Your task to perform on an android device: add a label to a message in the gmail app Image 0: 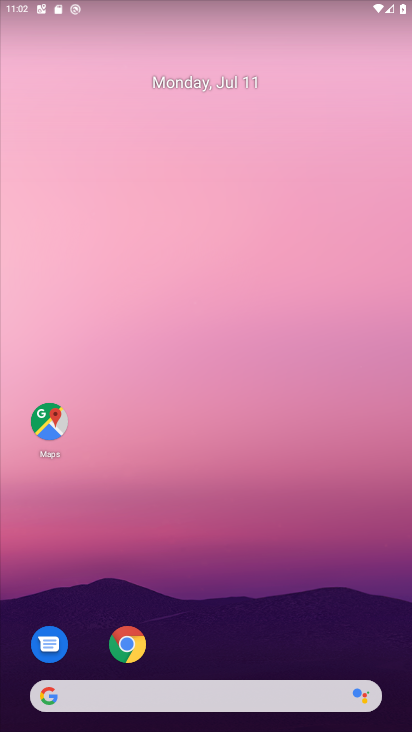
Step 0: drag from (301, 599) to (286, 198)
Your task to perform on an android device: add a label to a message in the gmail app Image 1: 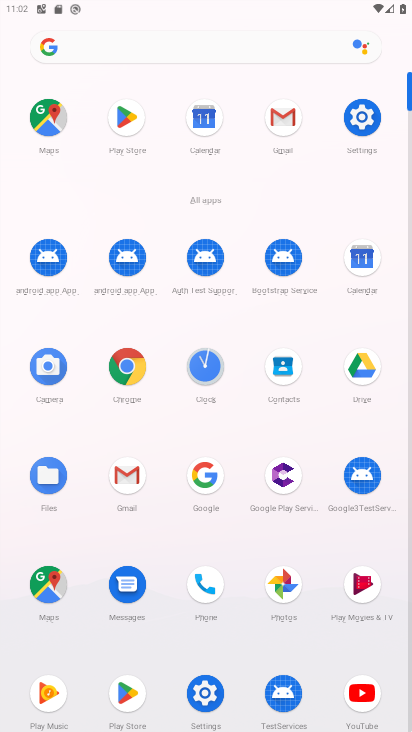
Step 1: click (278, 127)
Your task to perform on an android device: add a label to a message in the gmail app Image 2: 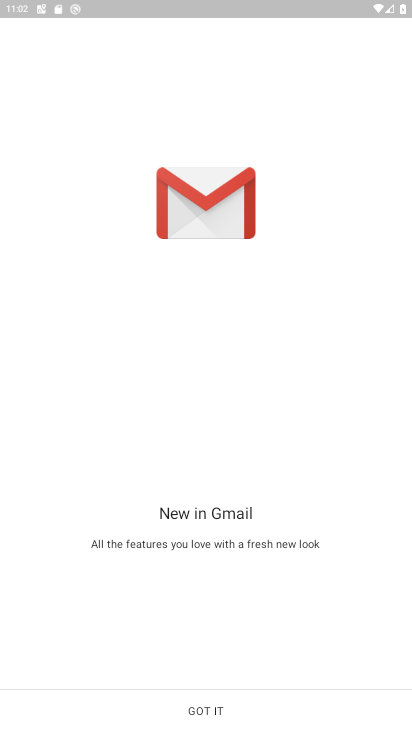
Step 2: click (269, 699)
Your task to perform on an android device: add a label to a message in the gmail app Image 3: 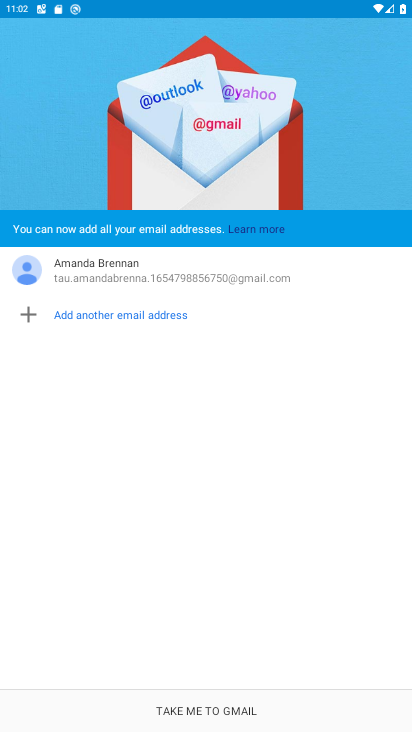
Step 3: click (131, 712)
Your task to perform on an android device: add a label to a message in the gmail app Image 4: 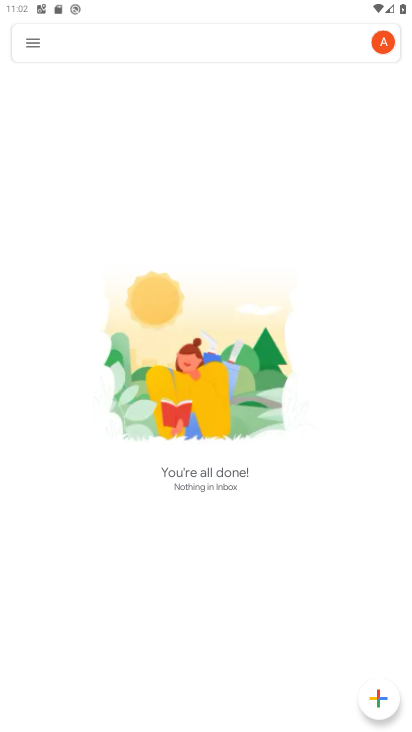
Step 4: click (34, 39)
Your task to perform on an android device: add a label to a message in the gmail app Image 5: 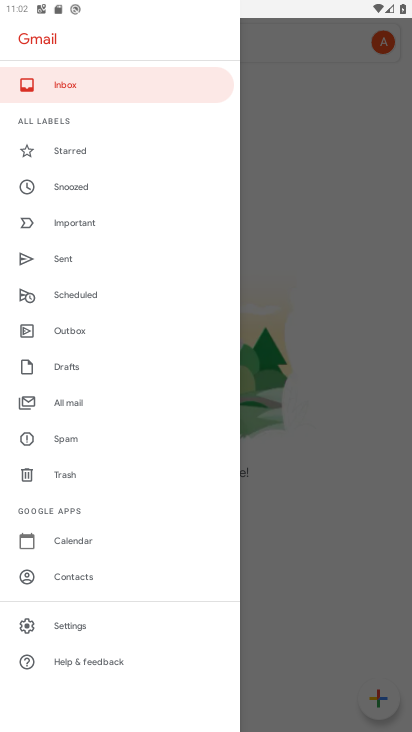
Step 5: click (106, 397)
Your task to perform on an android device: add a label to a message in the gmail app Image 6: 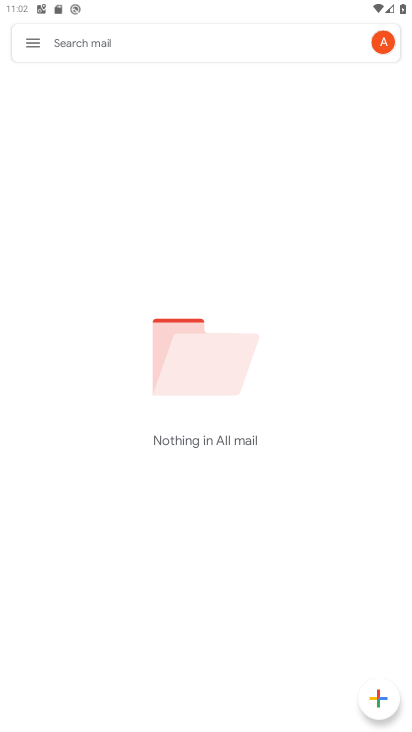
Step 6: task complete